Your task to perform on an android device: Set the phone to "Do not disturb". Image 0: 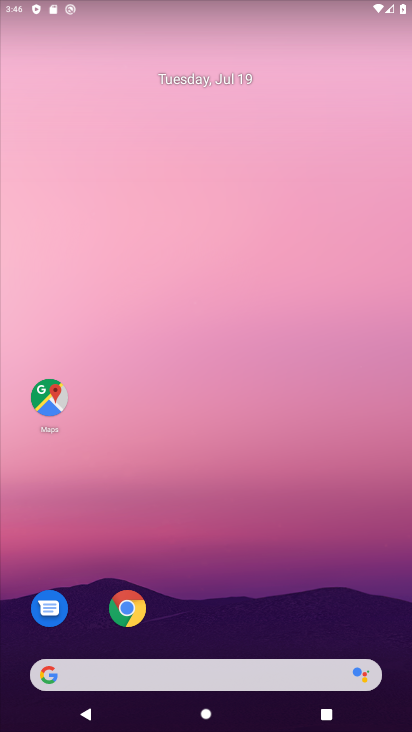
Step 0: drag from (294, 631) to (227, 206)
Your task to perform on an android device: Set the phone to "Do not disturb". Image 1: 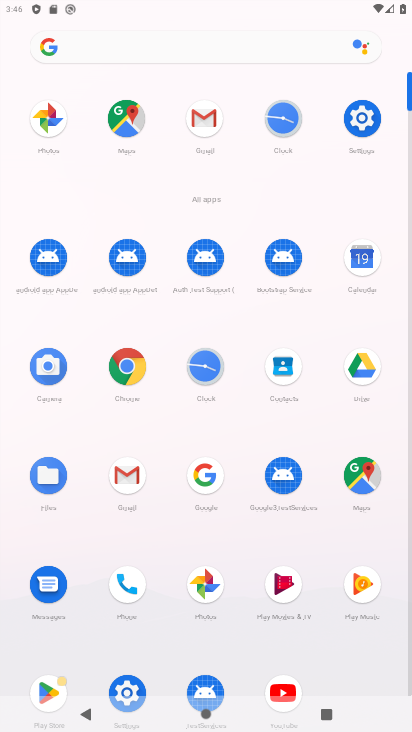
Step 1: drag from (270, 2) to (279, 414)
Your task to perform on an android device: Set the phone to "Do not disturb". Image 2: 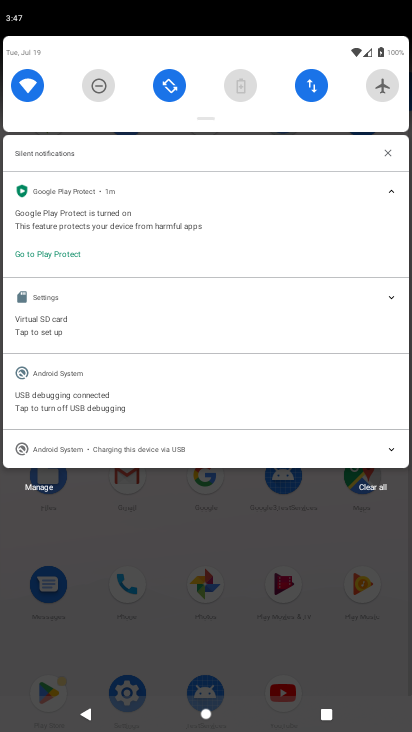
Step 2: click (93, 80)
Your task to perform on an android device: Set the phone to "Do not disturb". Image 3: 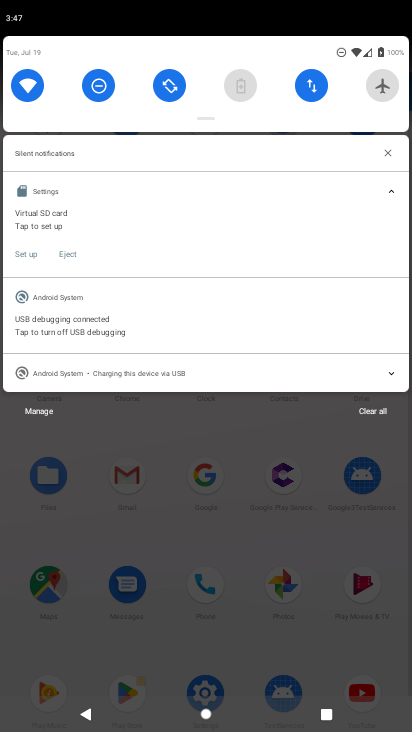
Step 3: task complete